Your task to perform on an android device: Open the calendar app, open the side menu, and click the "Day" option Image 0: 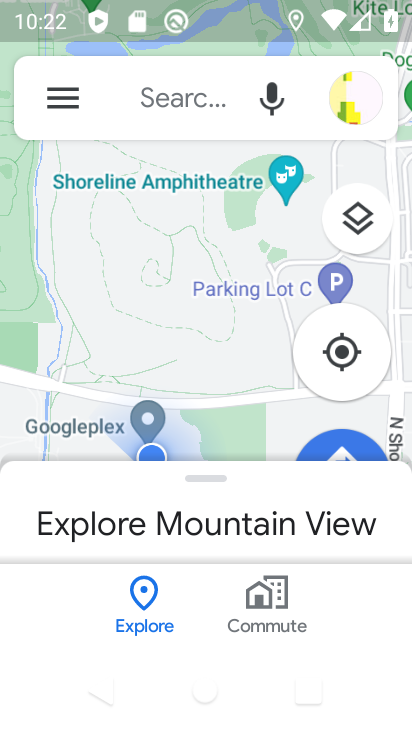
Step 0: press home button
Your task to perform on an android device: Open the calendar app, open the side menu, and click the "Day" option Image 1: 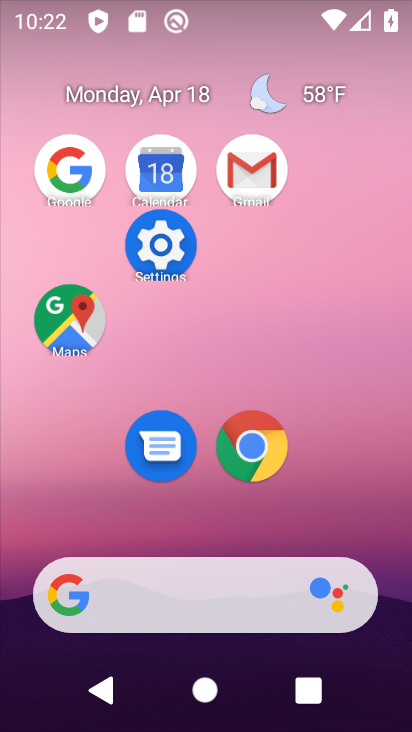
Step 1: click (169, 172)
Your task to perform on an android device: Open the calendar app, open the side menu, and click the "Day" option Image 2: 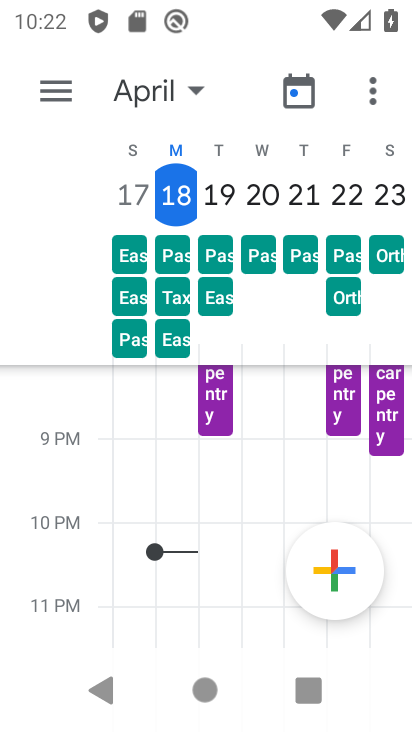
Step 2: click (55, 95)
Your task to perform on an android device: Open the calendar app, open the side menu, and click the "Day" option Image 3: 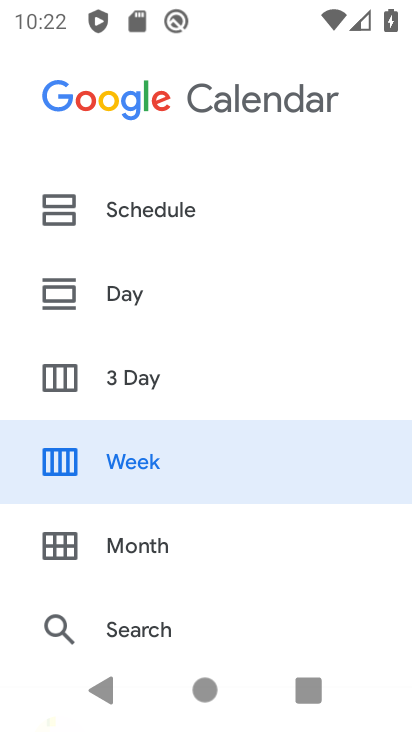
Step 3: click (150, 298)
Your task to perform on an android device: Open the calendar app, open the side menu, and click the "Day" option Image 4: 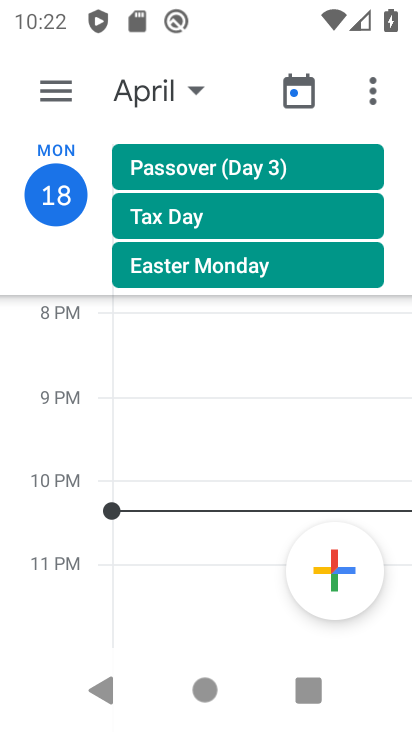
Step 4: task complete